Your task to perform on an android device: Check the weather Image 0: 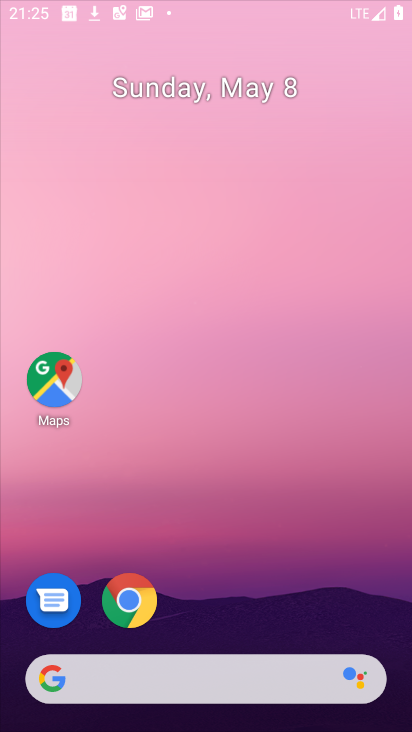
Step 0: drag from (262, 406) to (266, 263)
Your task to perform on an android device: Check the weather Image 1: 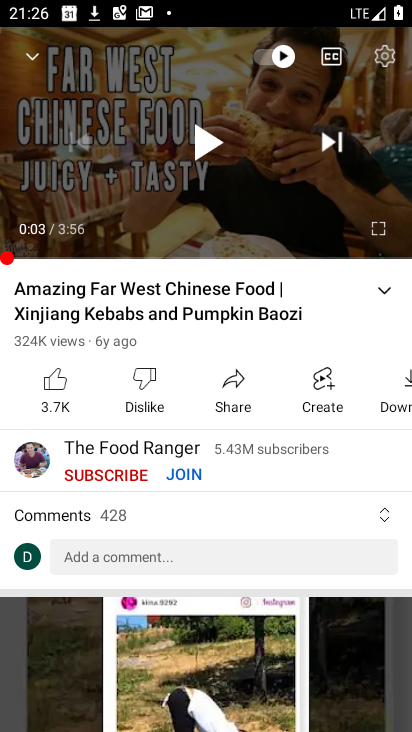
Step 1: press home button
Your task to perform on an android device: Check the weather Image 2: 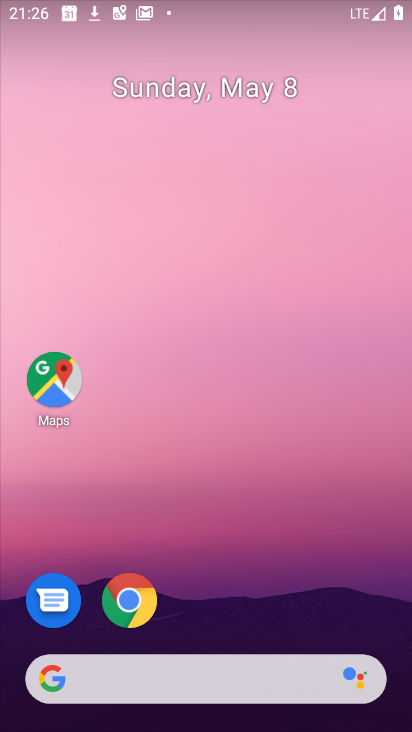
Step 2: drag from (327, 723) to (350, 341)
Your task to perform on an android device: Check the weather Image 3: 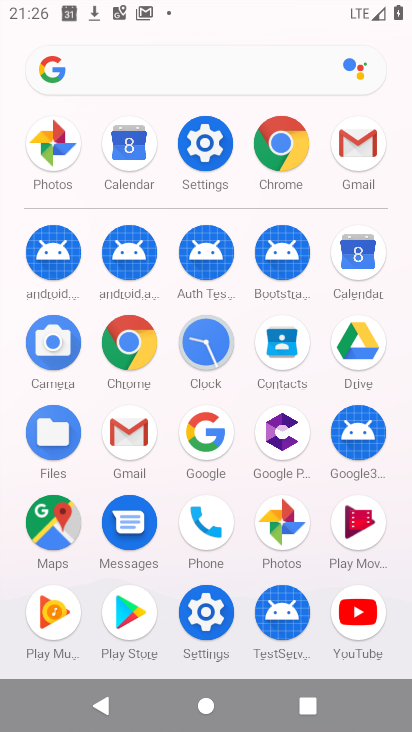
Step 3: click (125, 74)
Your task to perform on an android device: Check the weather Image 4: 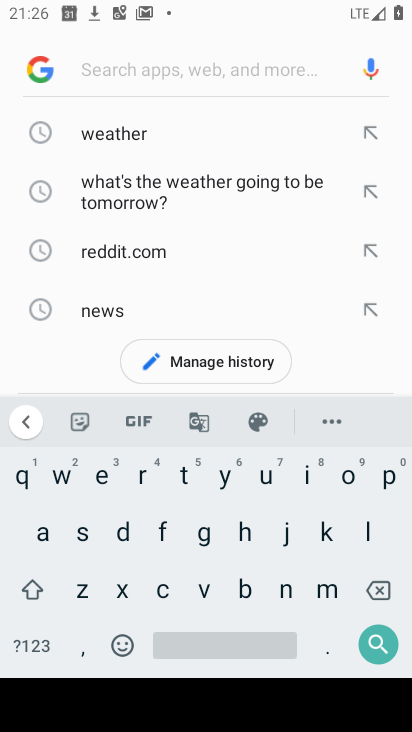
Step 4: click (175, 135)
Your task to perform on an android device: Check the weather Image 5: 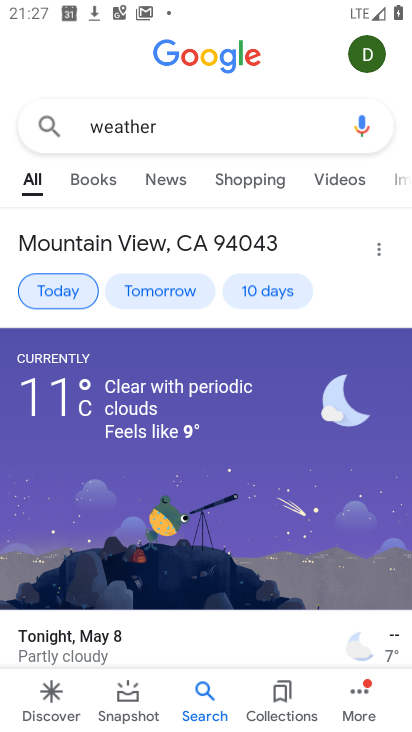
Step 5: task complete